Your task to perform on an android device: change your default location settings in chrome Image 0: 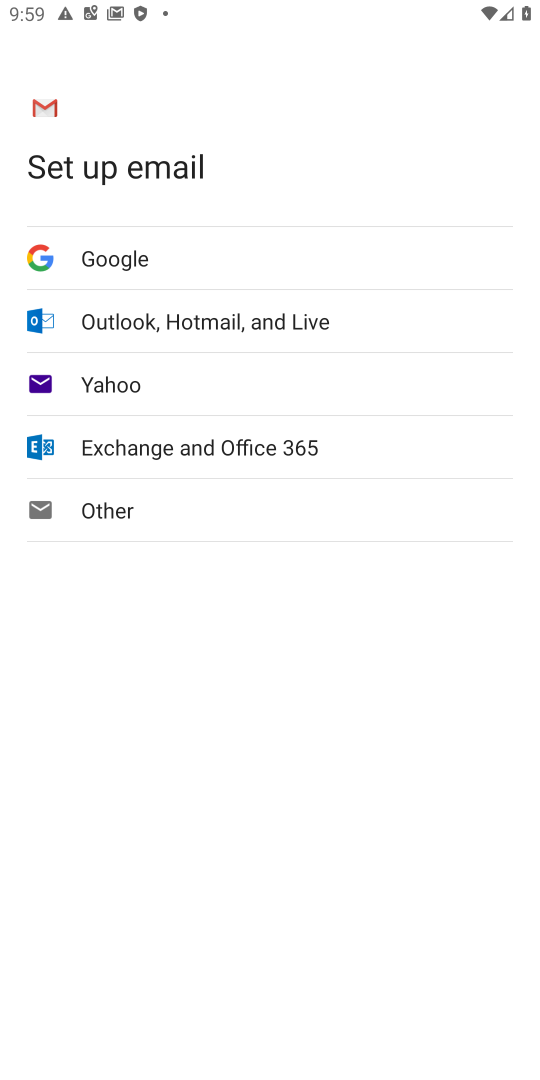
Step 0: press home button
Your task to perform on an android device: change your default location settings in chrome Image 1: 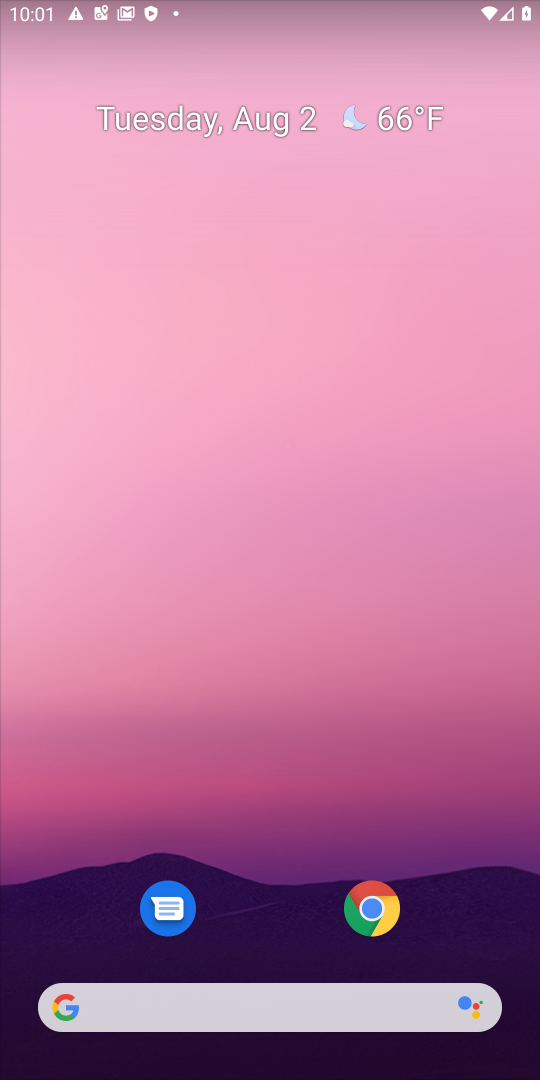
Step 1: click (358, 906)
Your task to perform on an android device: change your default location settings in chrome Image 2: 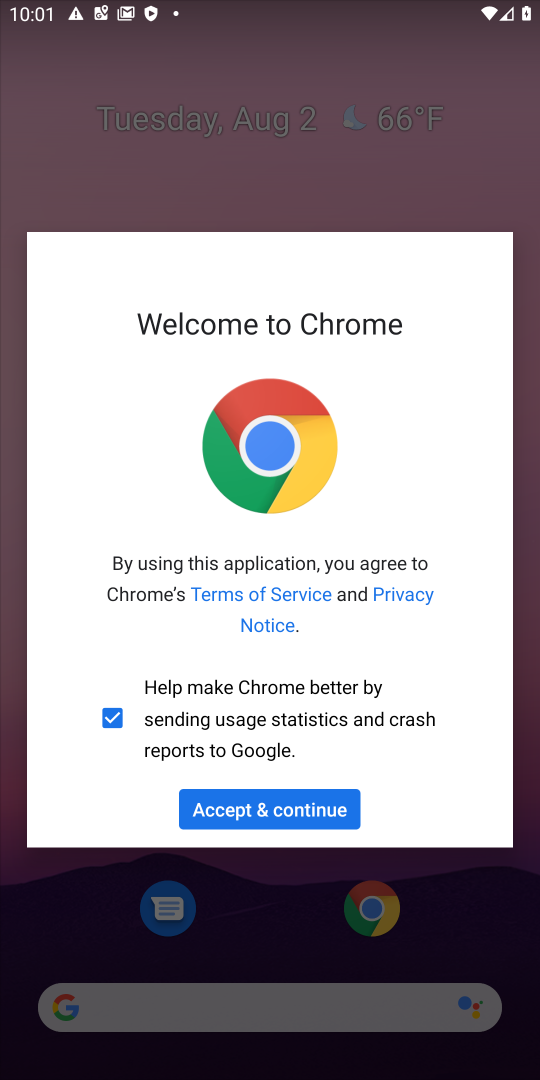
Step 2: task complete